Your task to perform on an android device: make emails show in primary in the gmail app Image 0: 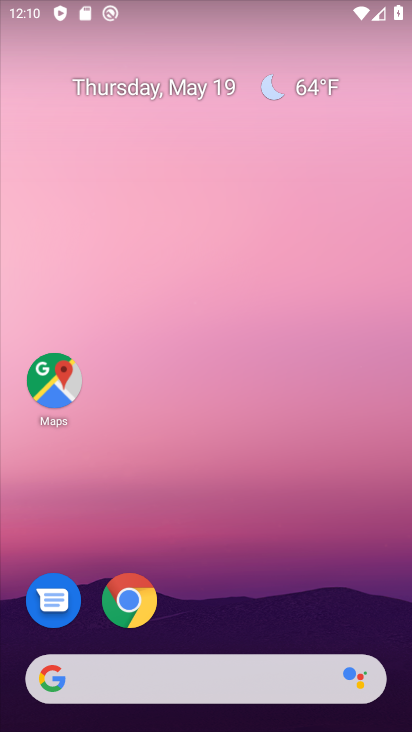
Step 0: drag from (132, 17) to (320, 19)
Your task to perform on an android device: make emails show in primary in the gmail app Image 1: 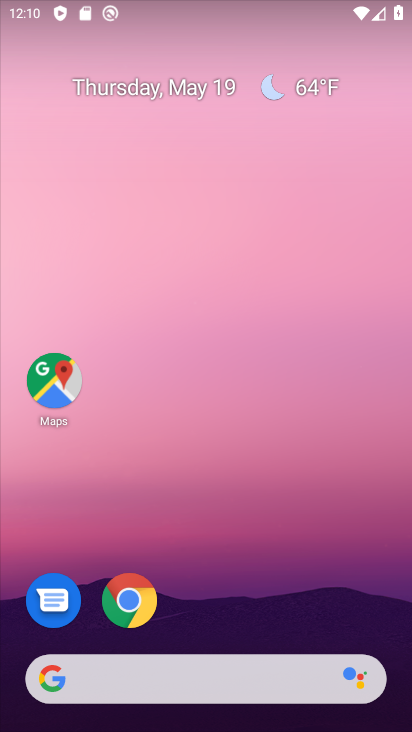
Step 1: drag from (213, 621) to (110, 722)
Your task to perform on an android device: make emails show in primary in the gmail app Image 2: 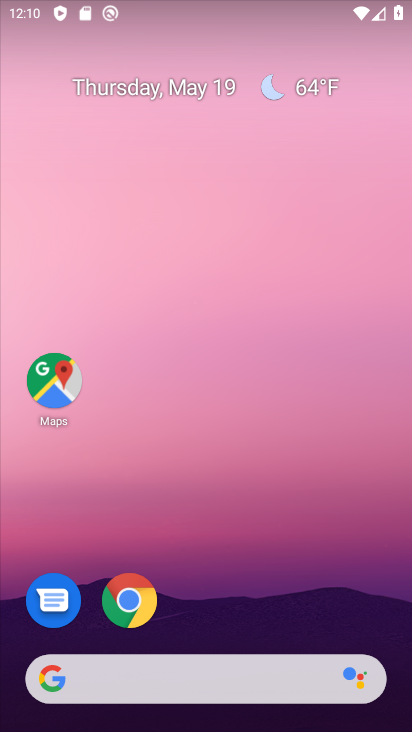
Step 2: drag from (219, 669) to (155, 9)
Your task to perform on an android device: make emails show in primary in the gmail app Image 3: 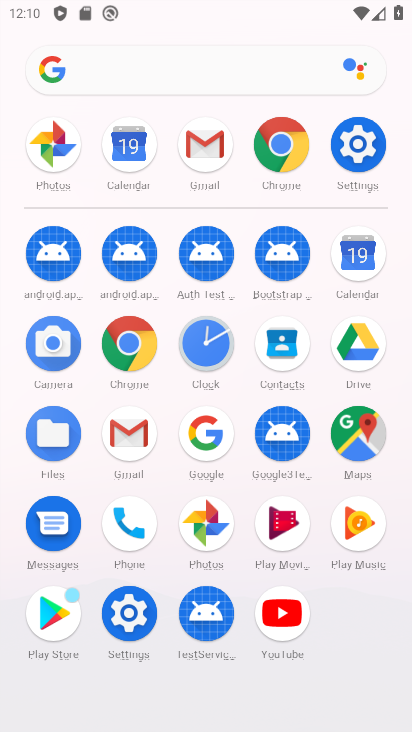
Step 3: click (134, 431)
Your task to perform on an android device: make emails show in primary in the gmail app Image 4: 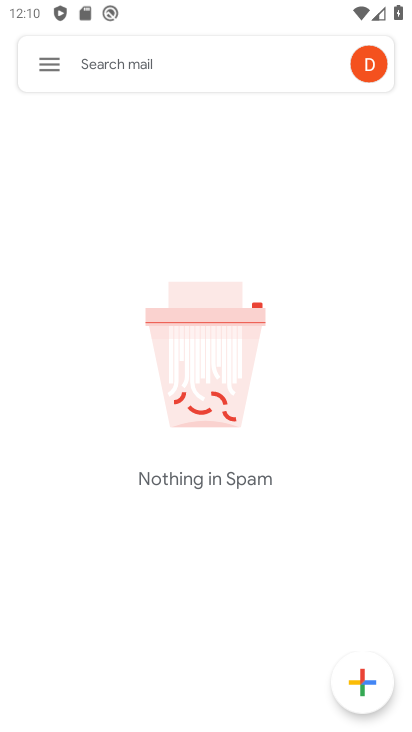
Step 4: click (50, 55)
Your task to perform on an android device: make emails show in primary in the gmail app Image 5: 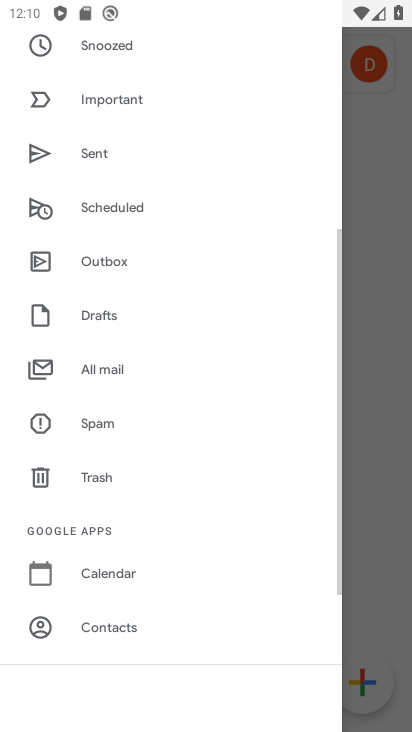
Step 5: drag from (165, 633) to (72, 67)
Your task to perform on an android device: make emails show in primary in the gmail app Image 6: 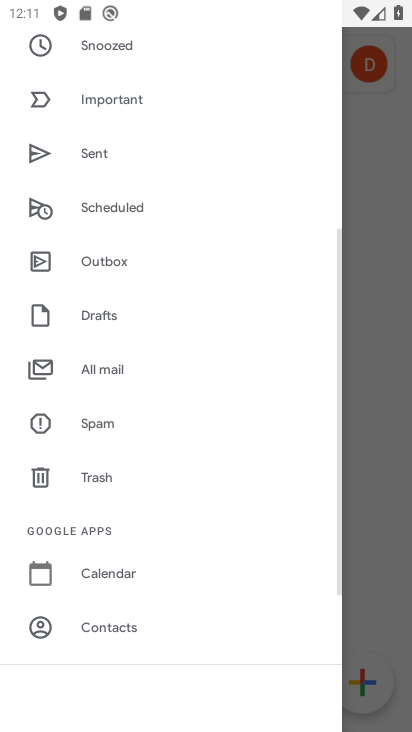
Step 6: drag from (96, 550) to (96, 93)
Your task to perform on an android device: make emails show in primary in the gmail app Image 7: 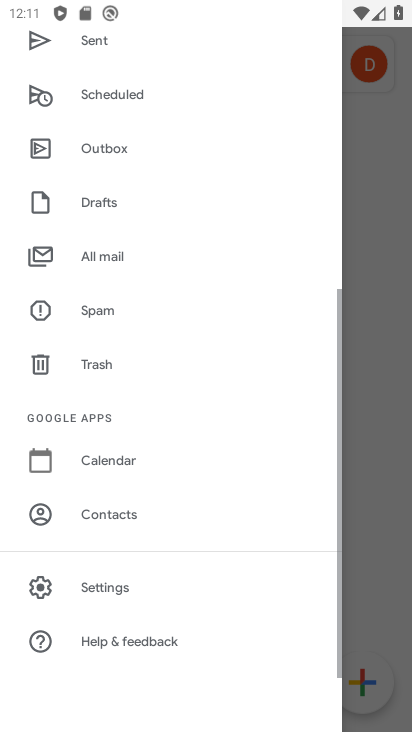
Step 7: click (111, 586)
Your task to perform on an android device: make emails show in primary in the gmail app Image 8: 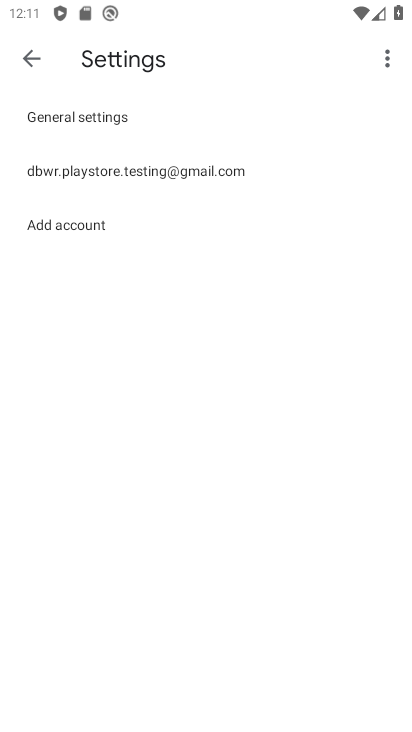
Step 8: click (60, 158)
Your task to perform on an android device: make emails show in primary in the gmail app Image 9: 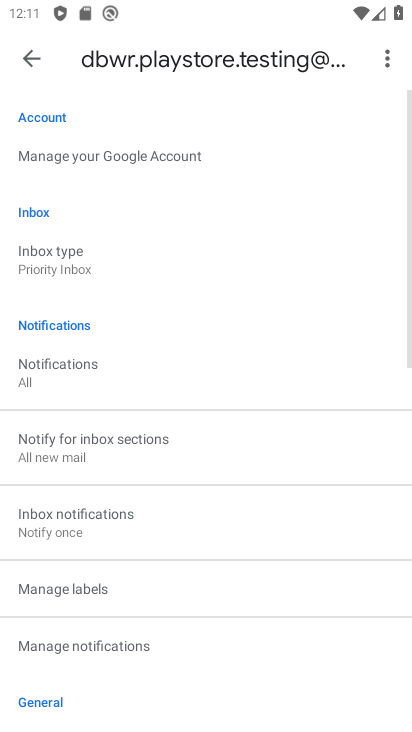
Step 9: click (79, 270)
Your task to perform on an android device: make emails show in primary in the gmail app Image 10: 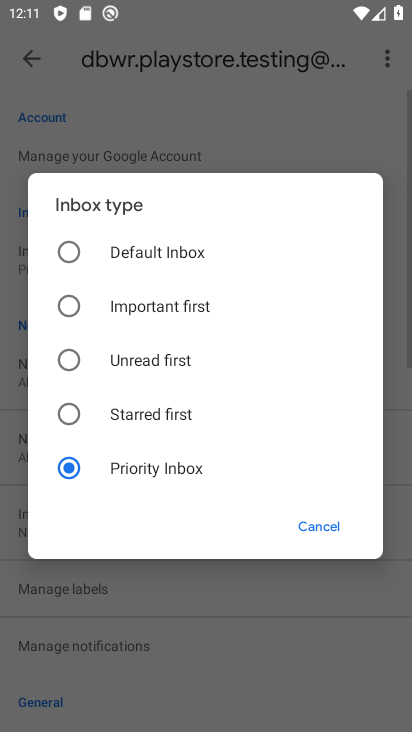
Step 10: click (180, 457)
Your task to perform on an android device: make emails show in primary in the gmail app Image 11: 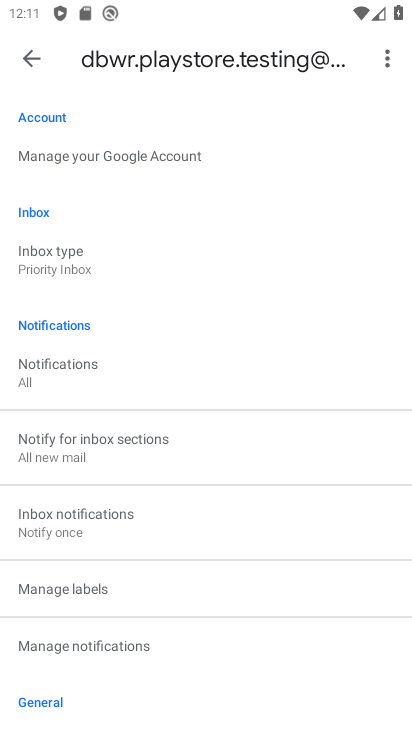
Step 11: click (51, 255)
Your task to perform on an android device: make emails show in primary in the gmail app Image 12: 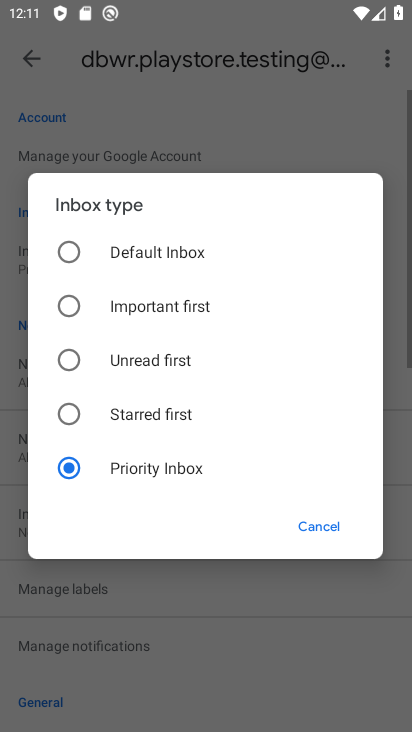
Step 12: click (107, 239)
Your task to perform on an android device: make emails show in primary in the gmail app Image 13: 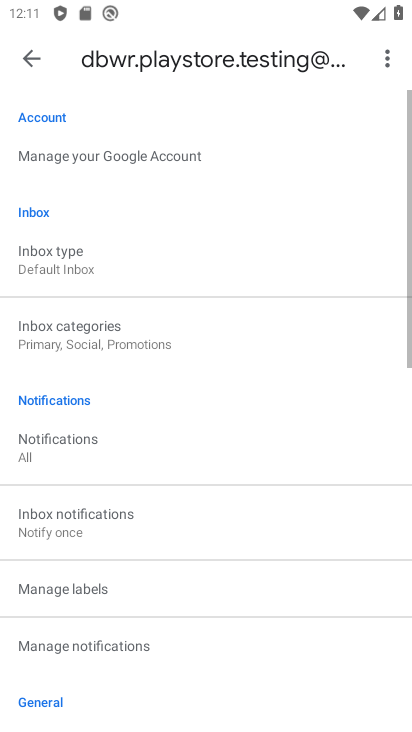
Step 13: click (14, 67)
Your task to perform on an android device: make emails show in primary in the gmail app Image 14: 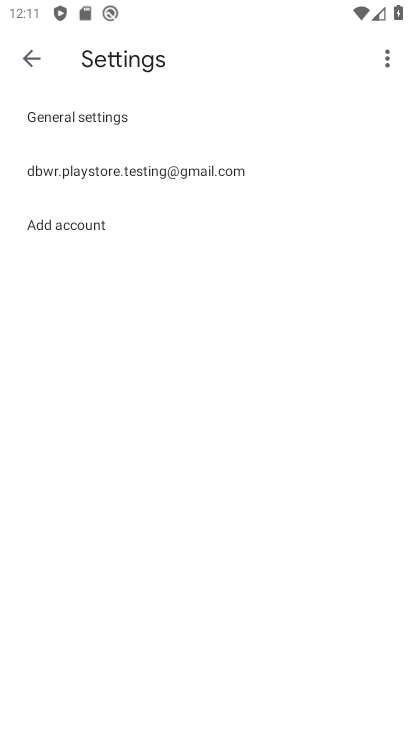
Step 14: click (13, 68)
Your task to perform on an android device: make emails show in primary in the gmail app Image 15: 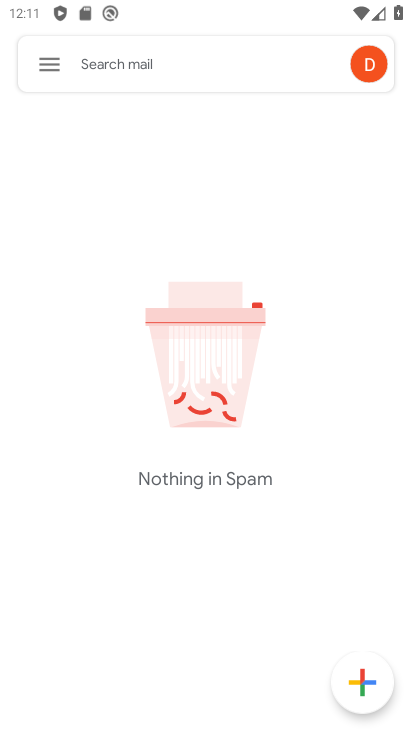
Step 15: click (48, 67)
Your task to perform on an android device: make emails show in primary in the gmail app Image 16: 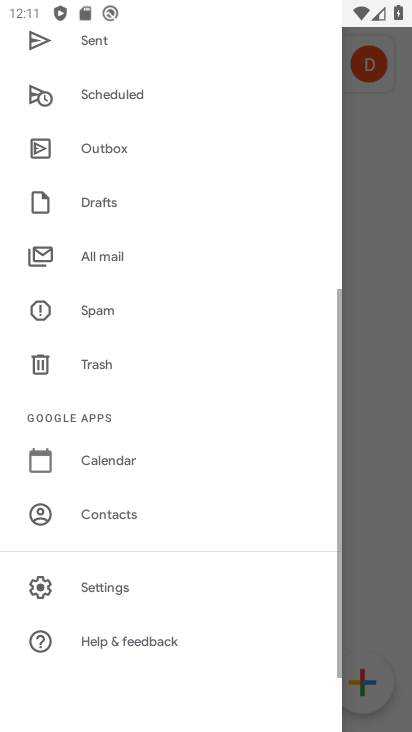
Step 16: drag from (107, 108) to (137, 643)
Your task to perform on an android device: make emails show in primary in the gmail app Image 17: 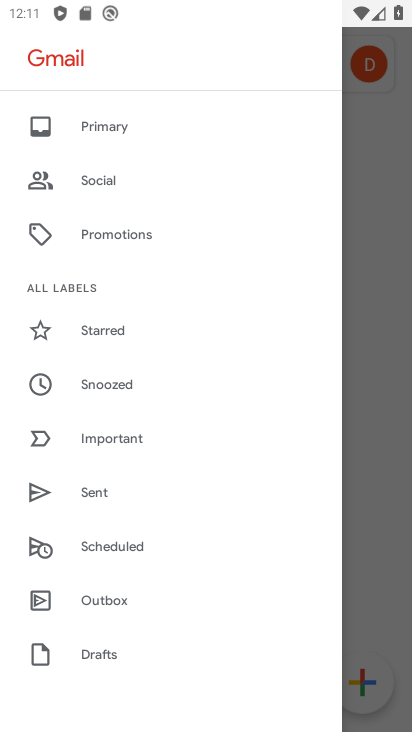
Step 17: click (121, 115)
Your task to perform on an android device: make emails show in primary in the gmail app Image 18: 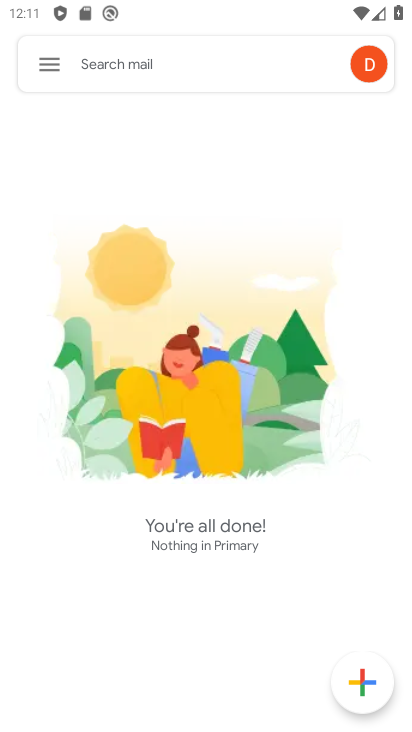
Step 18: task complete